Your task to perform on an android device: open app "Gmail" Image 0: 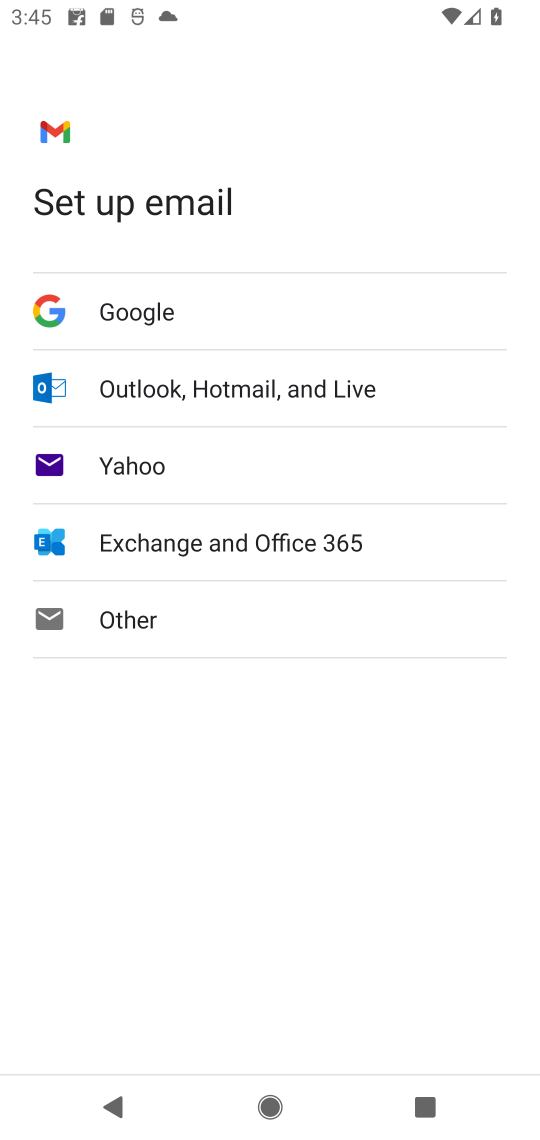
Step 0: press home button
Your task to perform on an android device: open app "Gmail" Image 1: 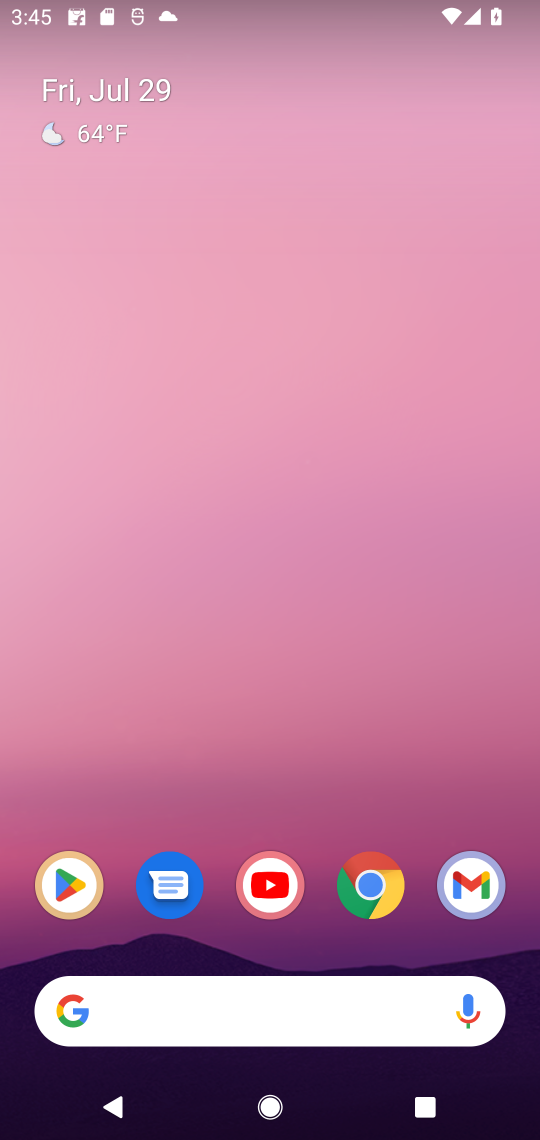
Step 1: click (70, 914)
Your task to perform on an android device: open app "Gmail" Image 2: 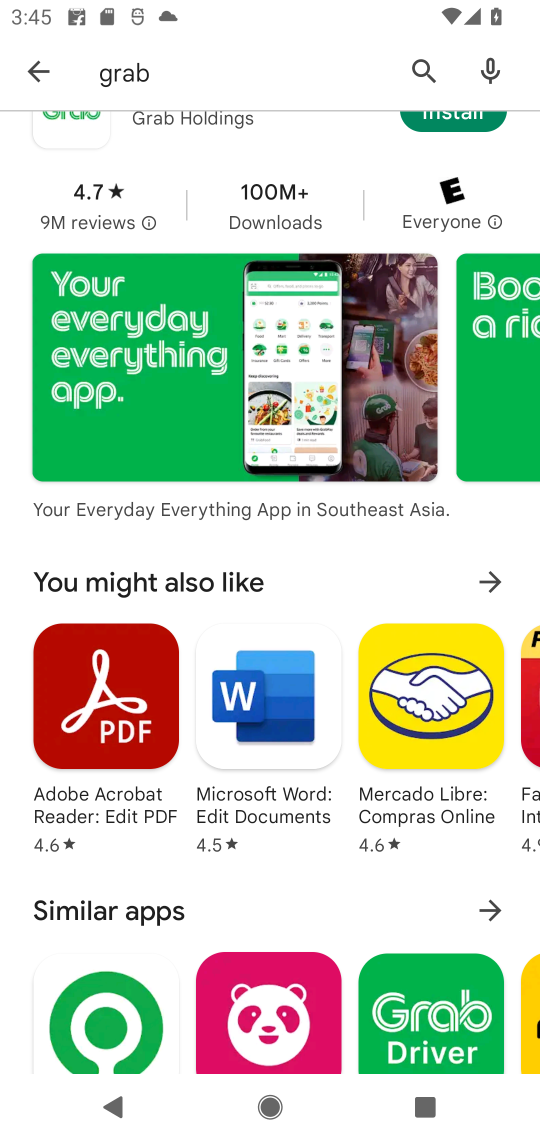
Step 2: click (413, 64)
Your task to perform on an android device: open app "Gmail" Image 3: 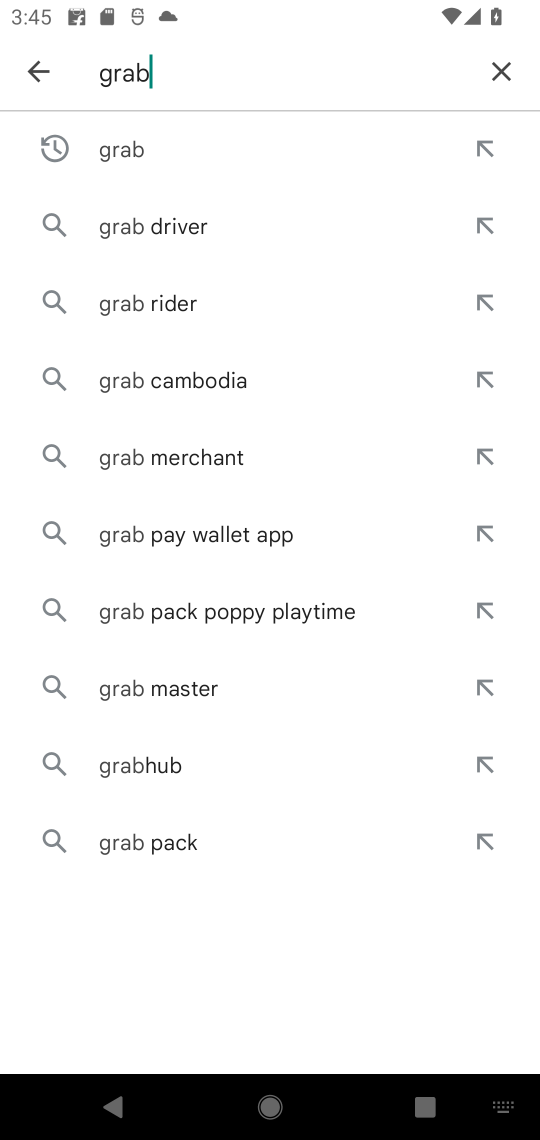
Step 3: click (498, 75)
Your task to perform on an android device: open app "Gmail" Image 4: 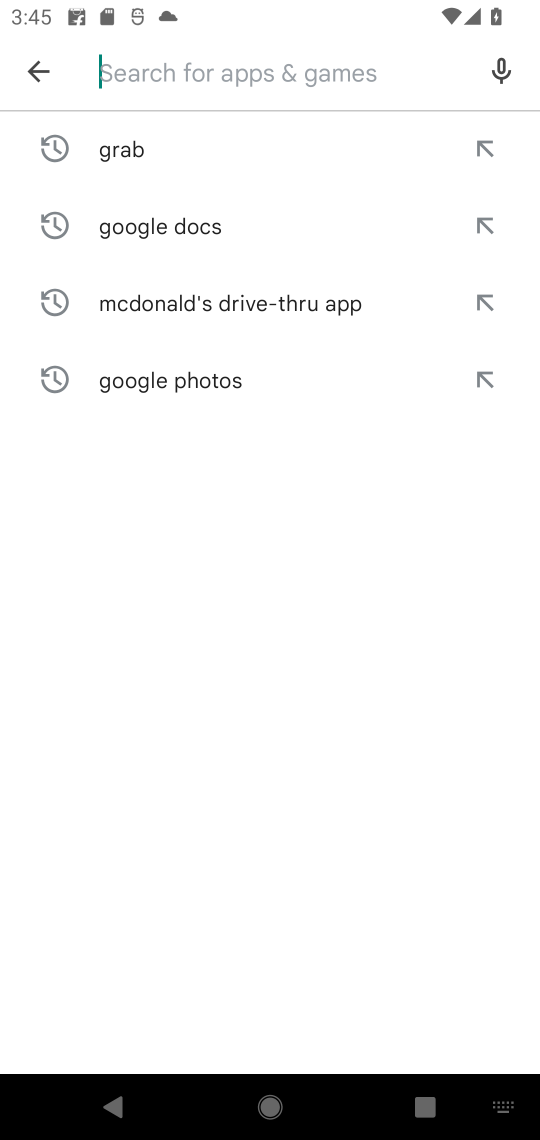
Step 4: click (369, 75)
Your task to perform on an android device: open app "Gmail" Image 5: 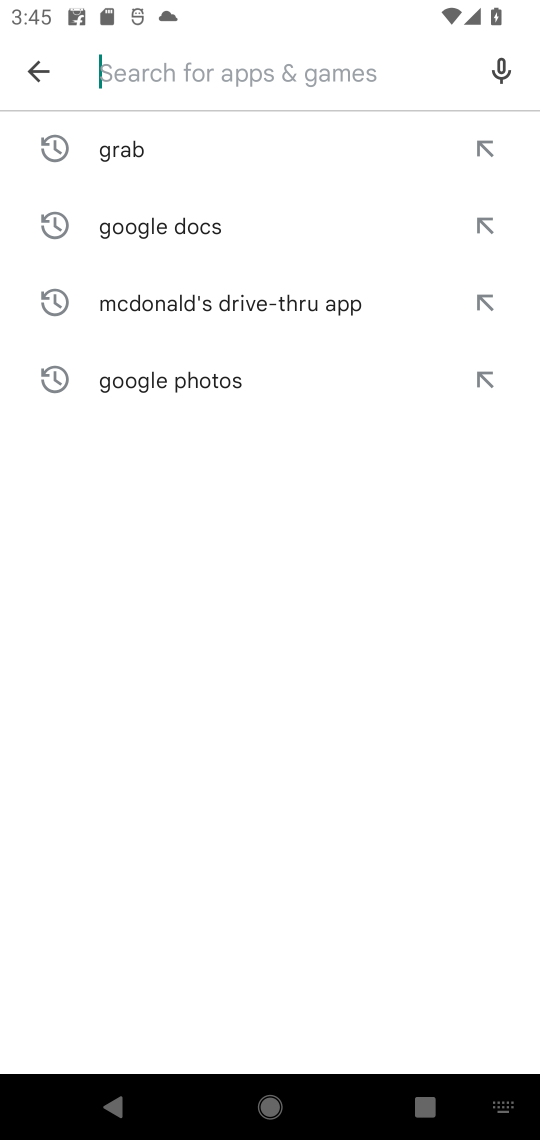
Step 5: type "Gmail"
Your task to perform on an android device: open app "Gmail" Image 6: 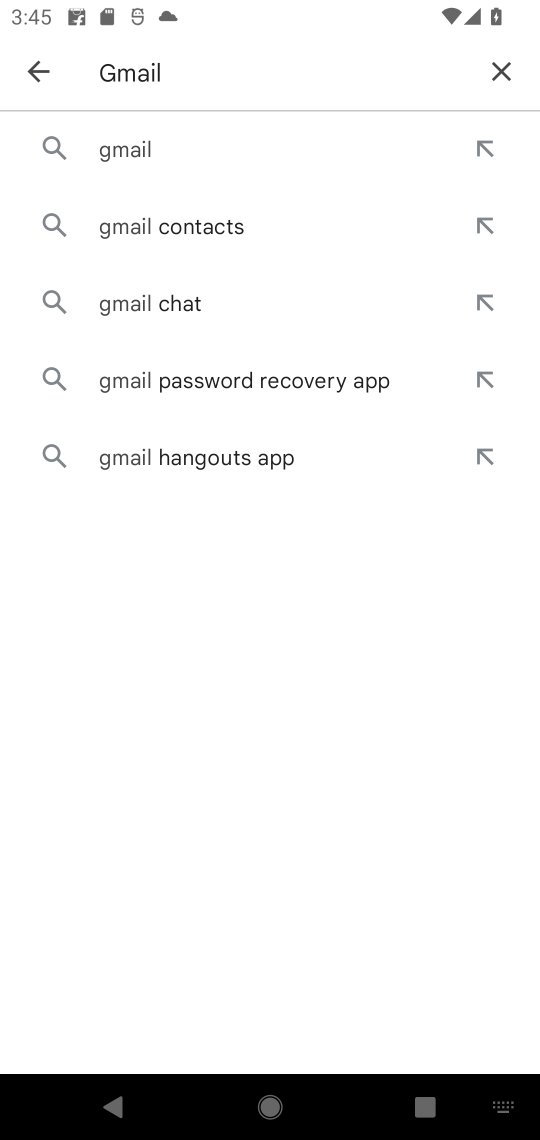
Step 6: click (211, 147)
Your task to perform on an android device: open app "Gmail" Image 7: 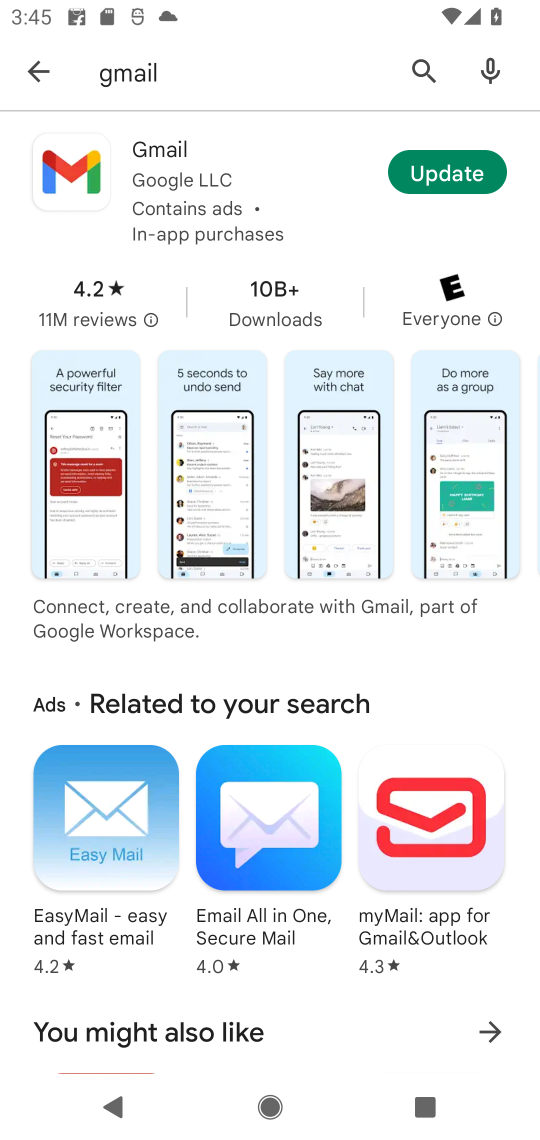
Step 7: click (277, 171)
Your task to perform on an android device: open app "Gmail" Image 8: 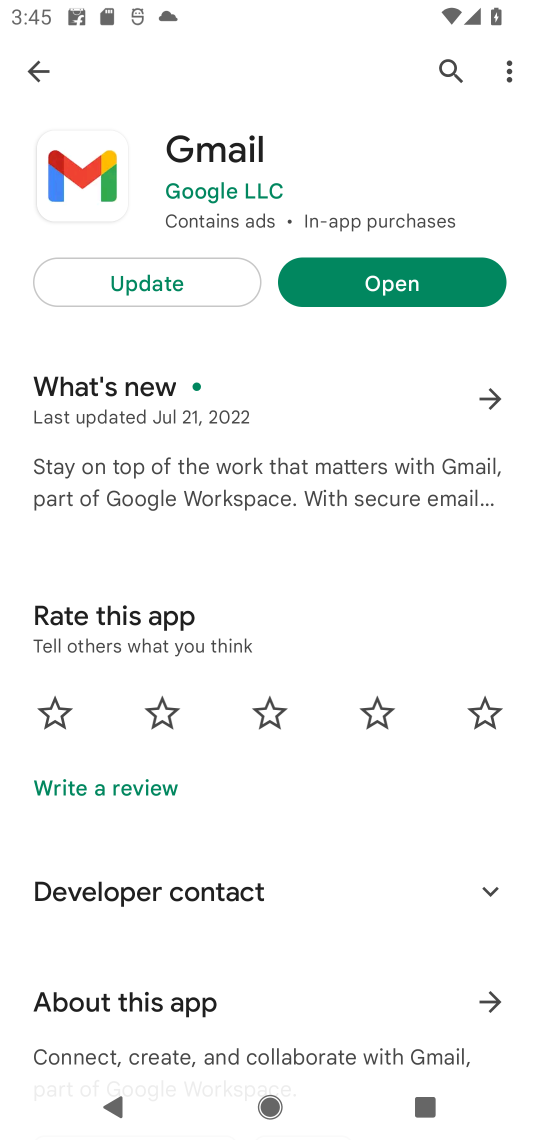
Step 8: click (354, 290)
Your task to perform on an android device: open app "Gmail" Image 9: 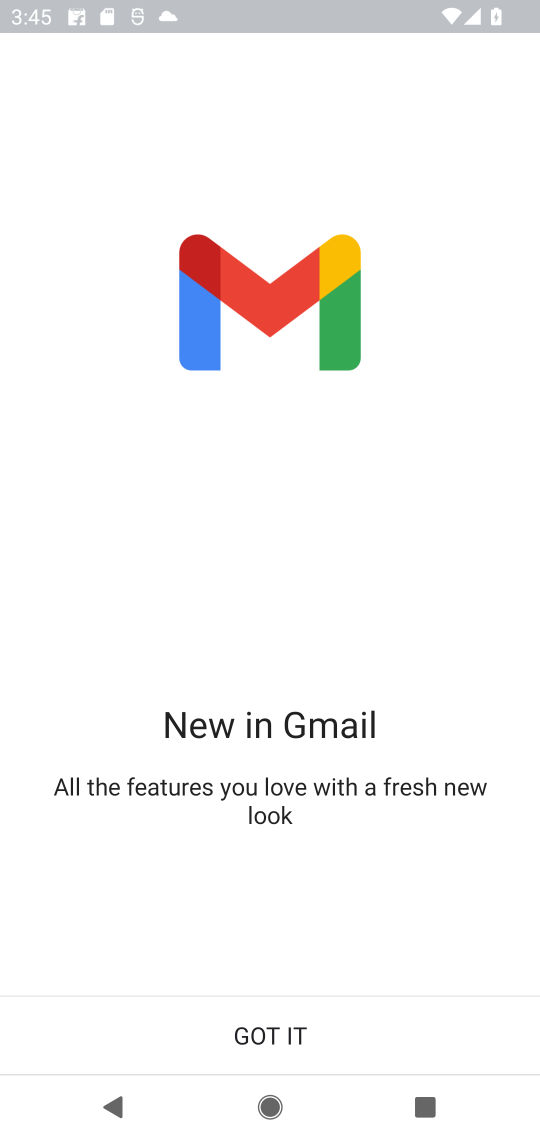
Step 9: click (305, 1025)
Your task to perform on an android device: open app "Gmail" Image 10: 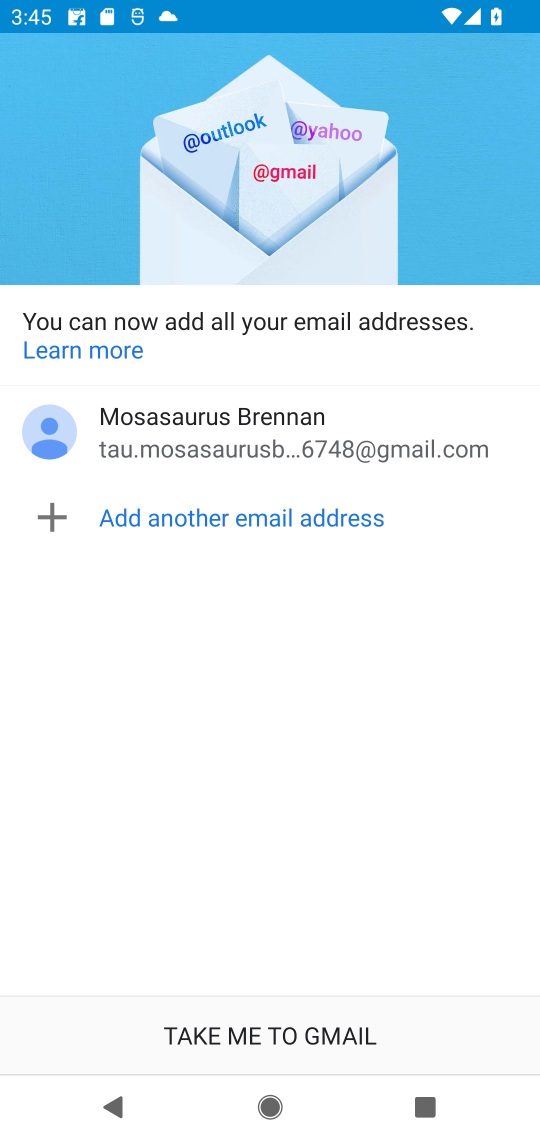
Step 10: click (305, 1025)
Your task to perform on an android device: open app "Gmail" Image 11: 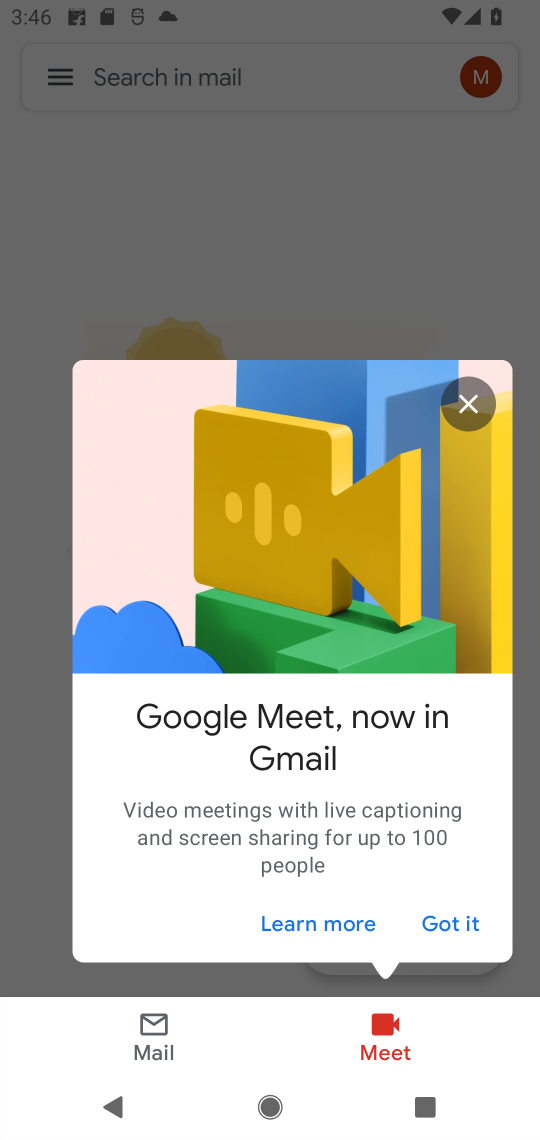
Step 11: click (464, 402)
Your task to perform on an android device: open app "Gmail" Image 12: 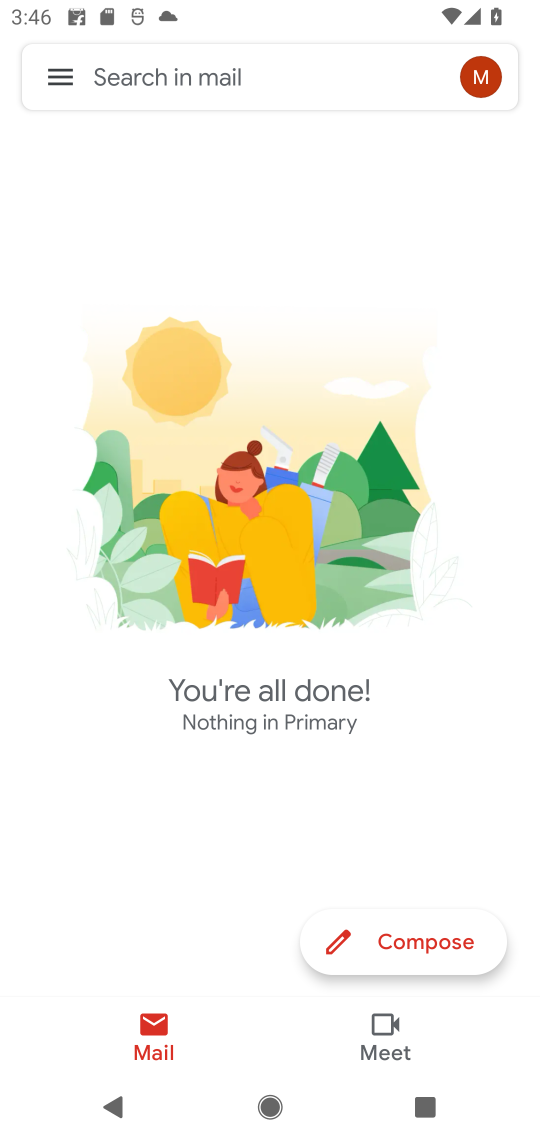
Step 12: task complete